Your task to perform on an android device: Search for pizza restaurants on Maps Image 0: 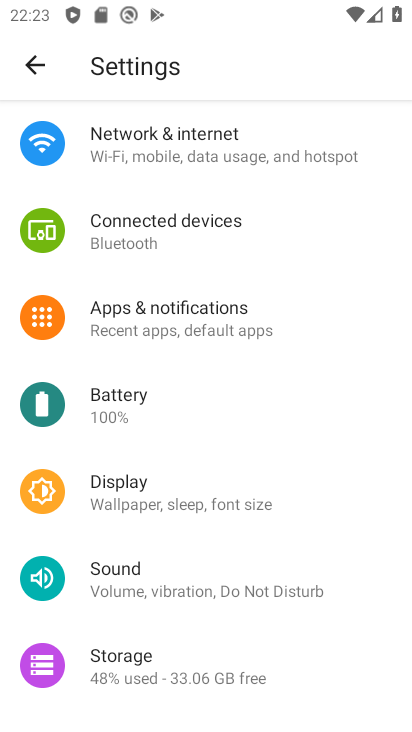
Step 0: press home button
Your task to perform on an android device: Search for pizza restaurants on Maps Image 1: 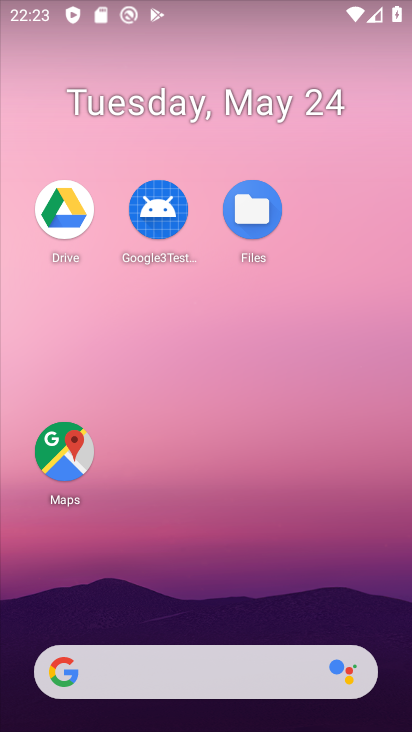
Step 1: click (60, 452)
Your task to perform on an android device: Search for pizza restaurants on Maps Image 2: 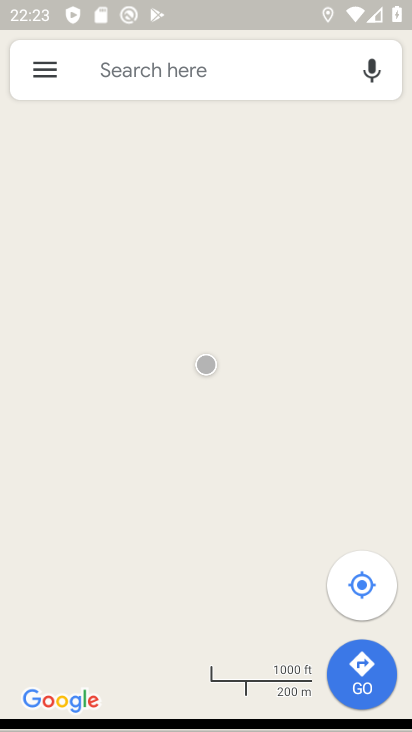
Step 2: click (225, 68)
Your task to perform on an android device: Search for pizza restaurants on Maps Image 3: 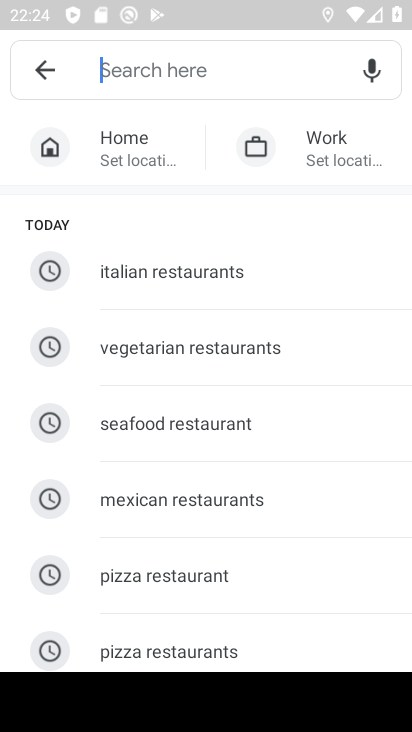
Step 3: type "pizza re"
Your task to perform on an android device: Search for pizza restaurants on Maps Image 4: 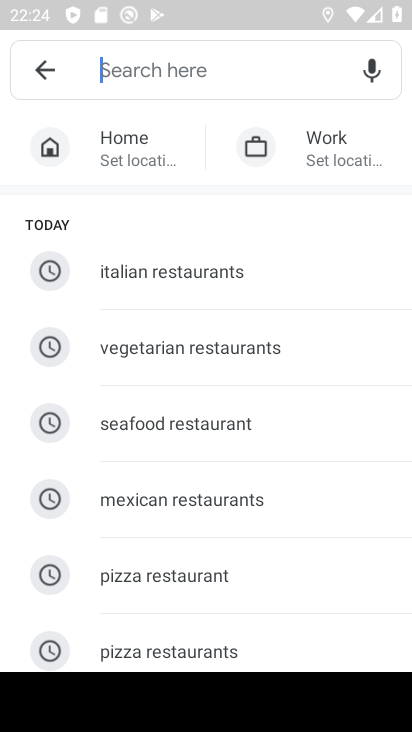
Step 4: click (194, 593)
Your task to perform on an android device: Search for pizza restaurants on Maps Image 5: 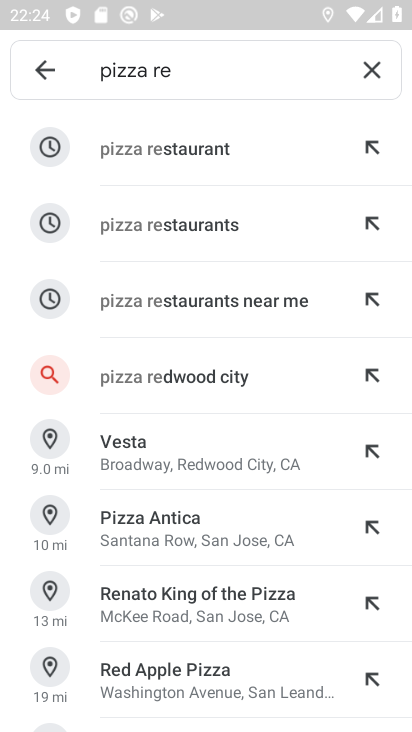
Step 5: click (233, 173)
Your task to perform on an android device: Search for pizza restaurants on Maps Image 6: 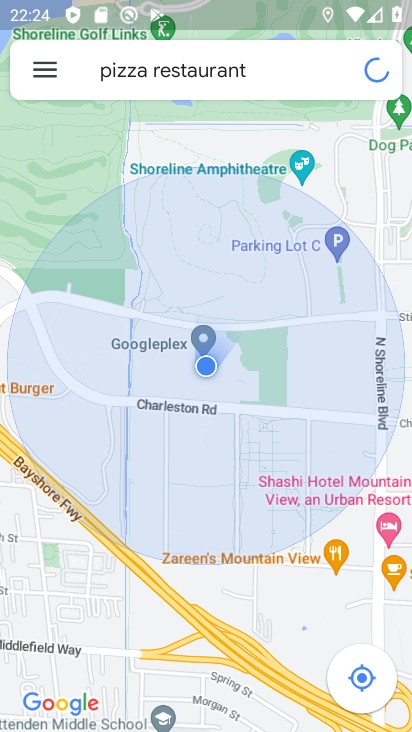
Step 6: task complete